Your task to perform on an android device: Open Google Maps Image 0: 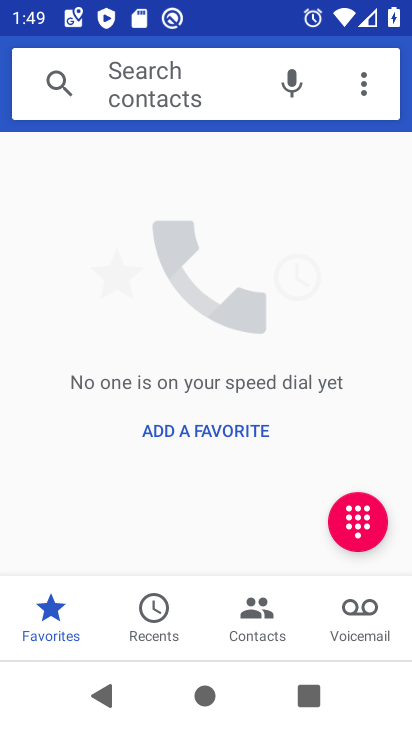
Step 0: press home button
Your task to perform on an android device: Open Google Maps Image 1: 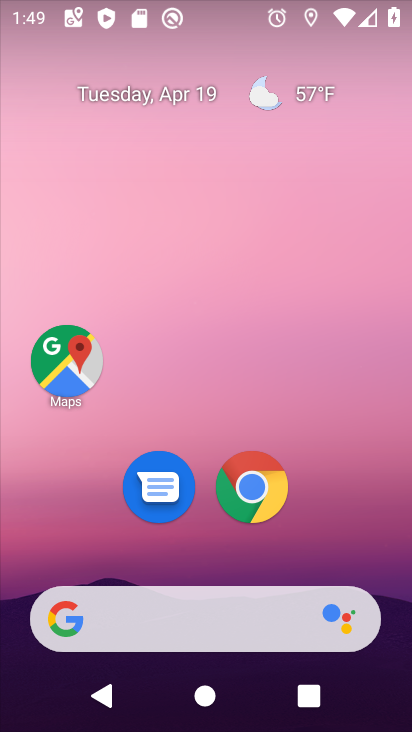
Step 1: drag from (376, 511) to (390, 127)
Your task to perform on an android device: Open Google Maps Image 2: 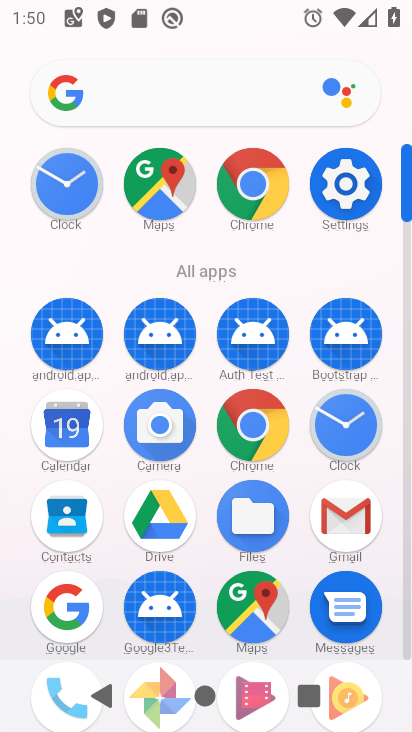
Step 2: click (245, 592)
Your task to perform on an android device: Open Google Maps Image 3: 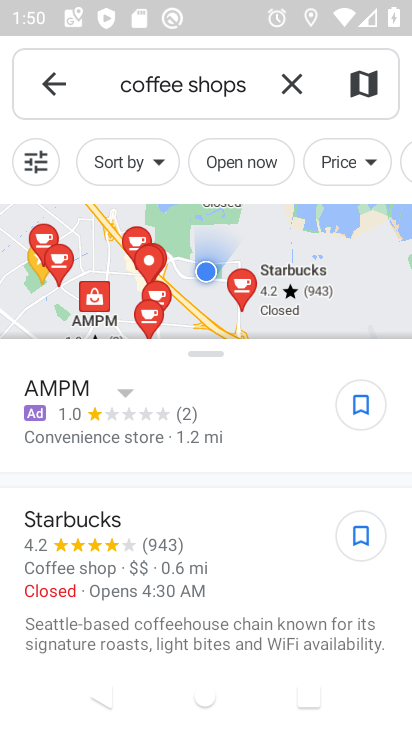
Step 3: task complete